Your task to perform on an android device: Is it going to rain this weekend? Image 0: 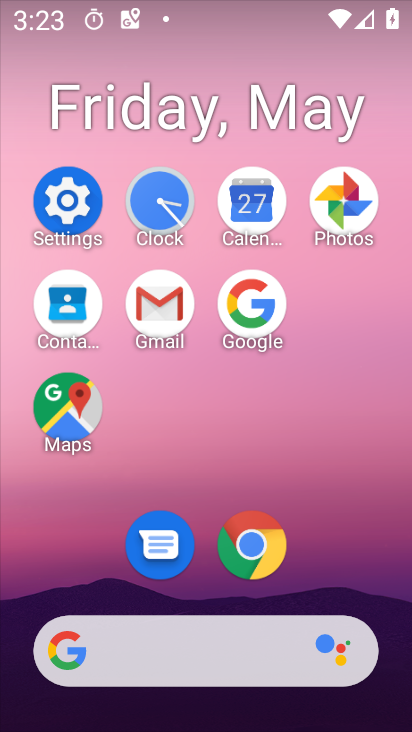
Step 0: click (264, 304)
Your task to perform on an android device: Is it going to rain this weekend? Image 1: 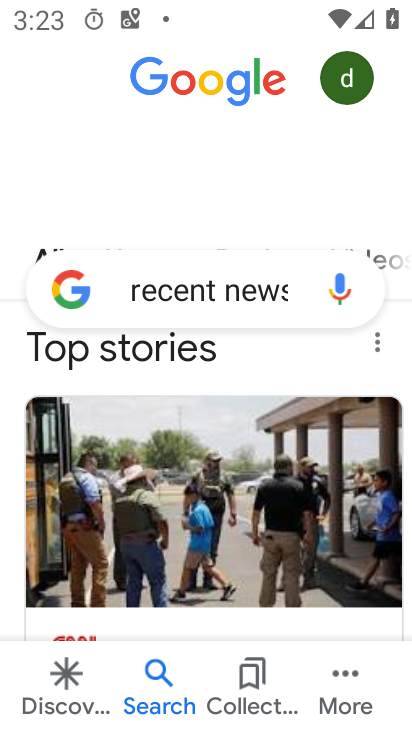
Step 1: click (244, 287)
Your task to perform on an android device: Is it going to rain this weekend? Image 2: 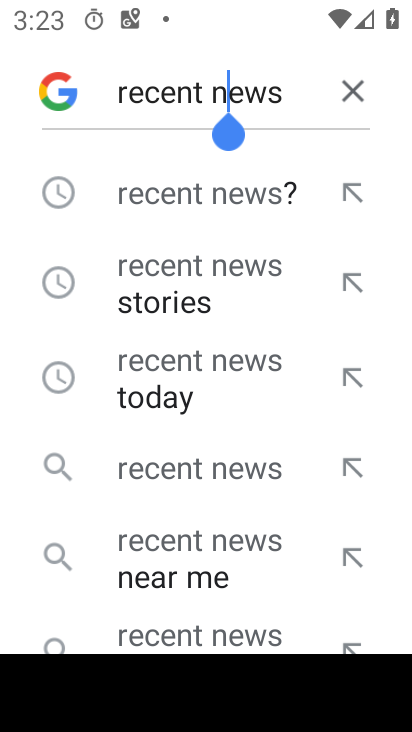
Step 2: click (356, 86)
Your task to perform on an android device: Is it going to rain this weekend? Image 3: 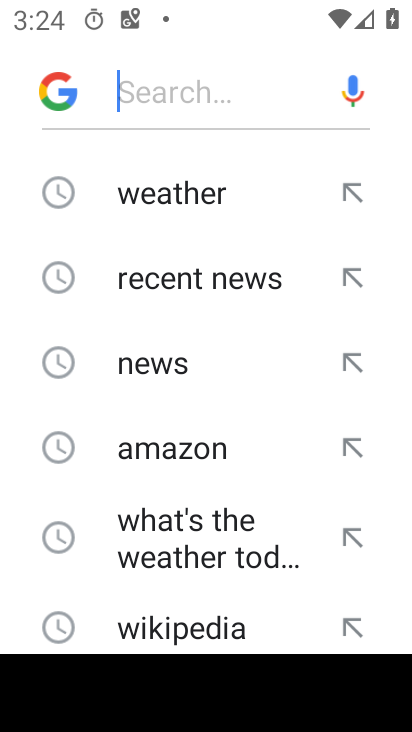
Step 3: click (171, 185)
Your task to perform on an android device: Is it going to rain this weekend? Image 4: 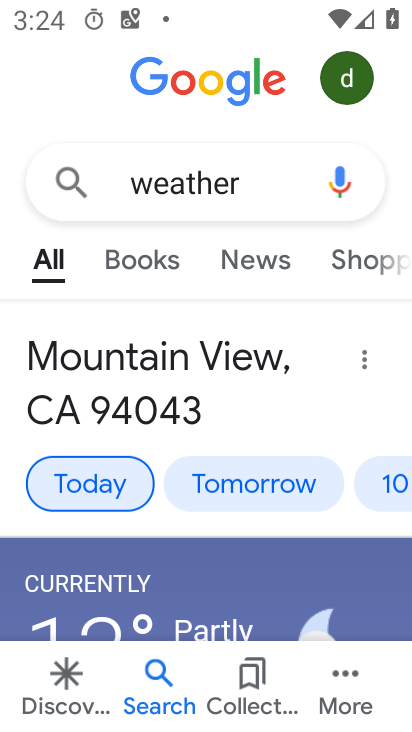
Step 4: click (387, 487)
Your task to perform on an android device: Is it going to rain this weekend? Image 5: 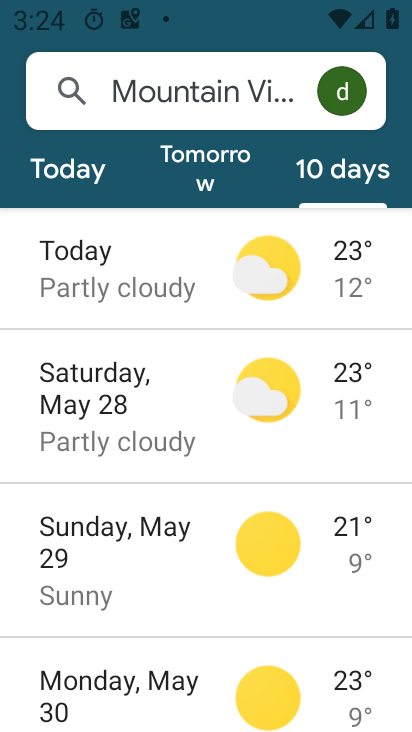
Step 5: click (135, 399)
Your task to perform on an android device: Is it going to rain this weekend? Image 6: 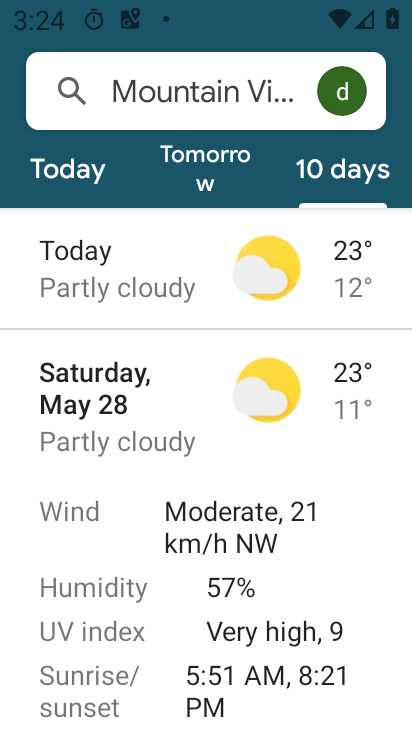
Step 6: task complete